Your task to perform on an android device: turn on notifications settings in the gmail app Image 0: 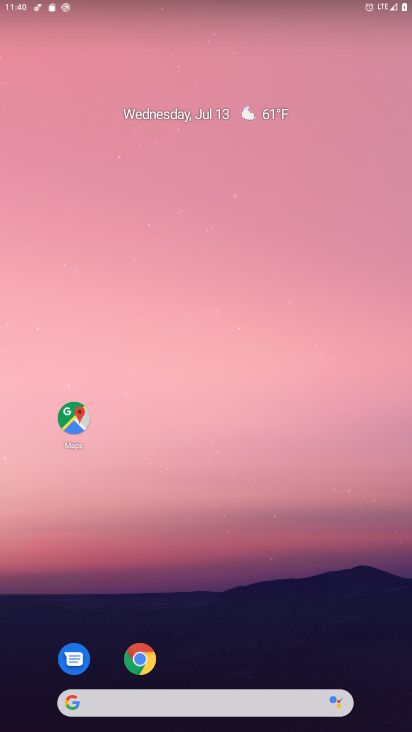
Step 0: press home button
Your task to perform on an android device: turn on notifications settings in the gmail app Image 1: 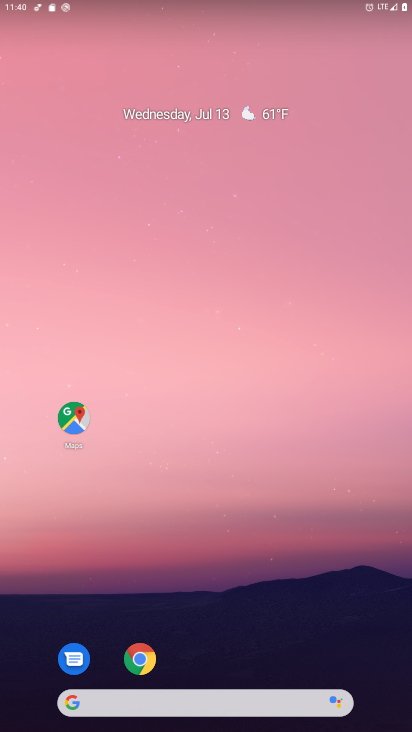
Step 1: drag from (210, 663) to (231, 93)
Your task to perform on an android device: turn on notifications settings in the gmail app Image 2: 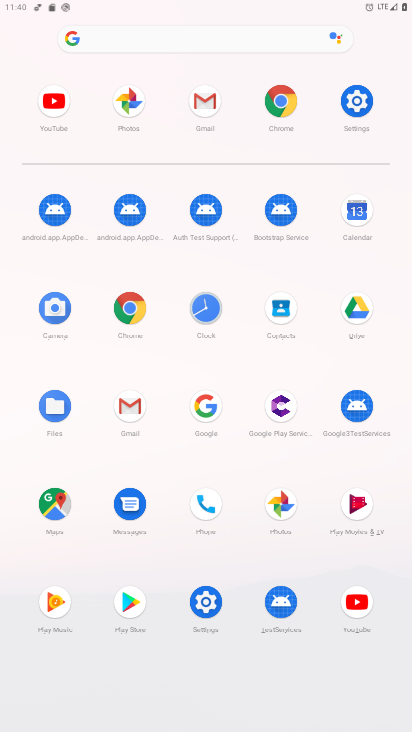
Step 2: click (128, 399)
Your task to perform on an android device: turn on notifications settings in the gmail app Image 3: 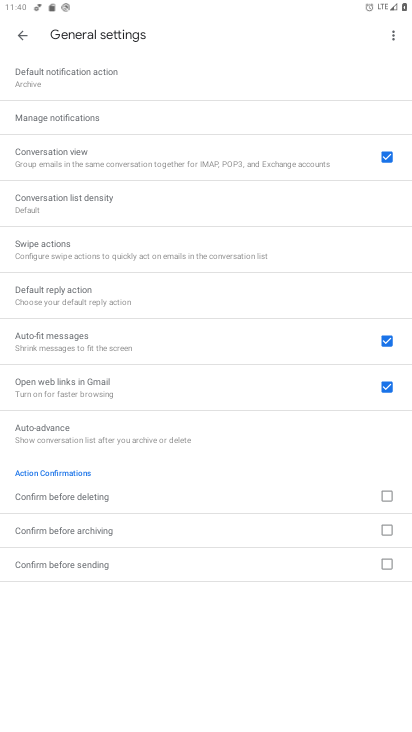
Step 3: click (107, 113)
Your task to perform on an android device: turn on notifications settings in the gmail app Image 4: 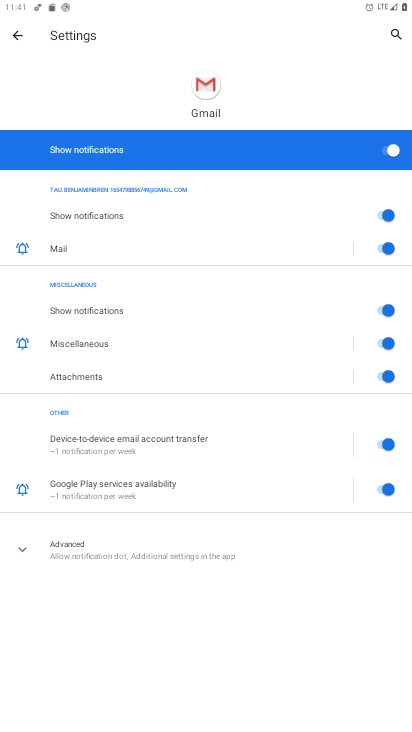
Step 4: task complete